Your task to perform on an android device: change your default location settings in chrome Image 0: 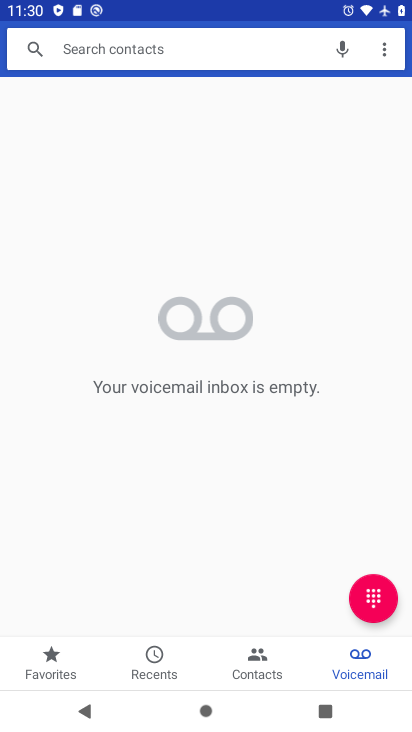
Step 0: press home button
Your task to perform on an android device: change your default location settings in chrome Image 1: 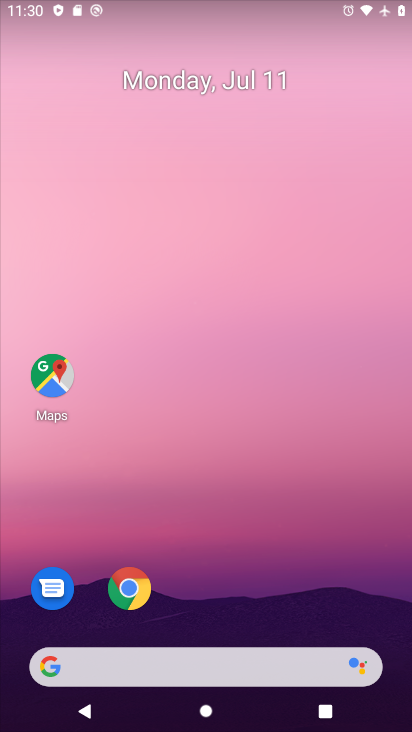
Step 1: click (136, 584)
Your task to perform on an android device: change your default location settings in chrome Image 2: 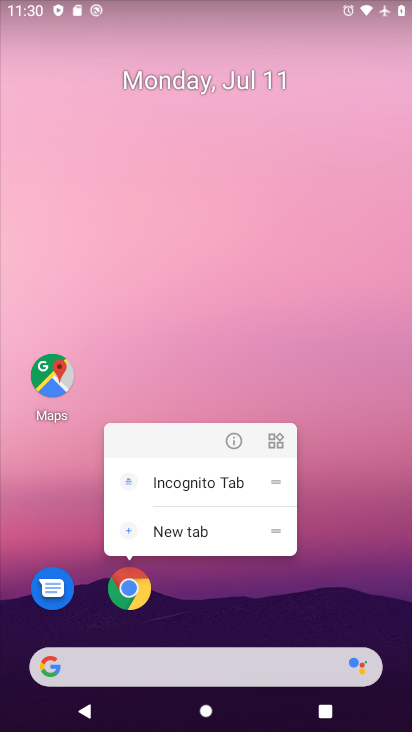
Step 2: click (135, 585)
Your task to perform on an android device: change your default location settings in chrome Image 3: 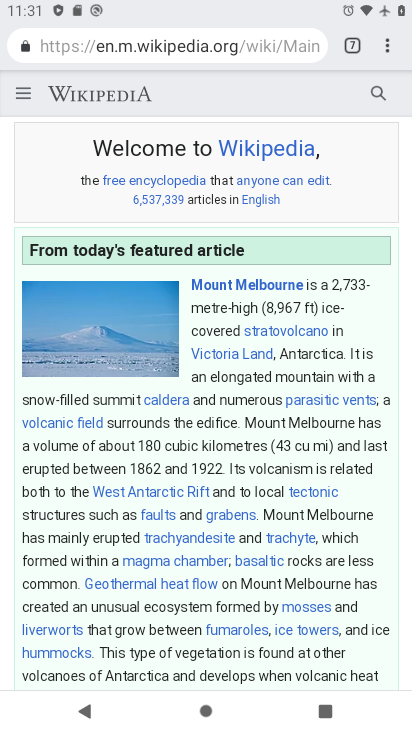
Step 3: drag from (389, 40) to (223, 547)
Your task to perform on an android device: change your default location settings in chrome Image 4: 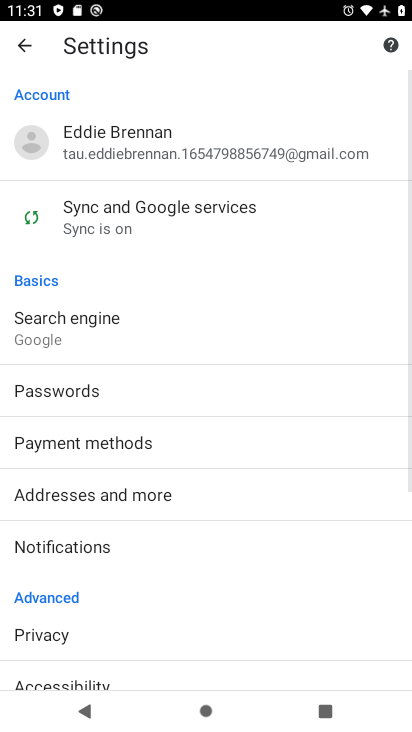
Step 4: drag from (97, 662) to (321, 127)
Your task to perform on an android device: change your default location settings in chrome Image 5: 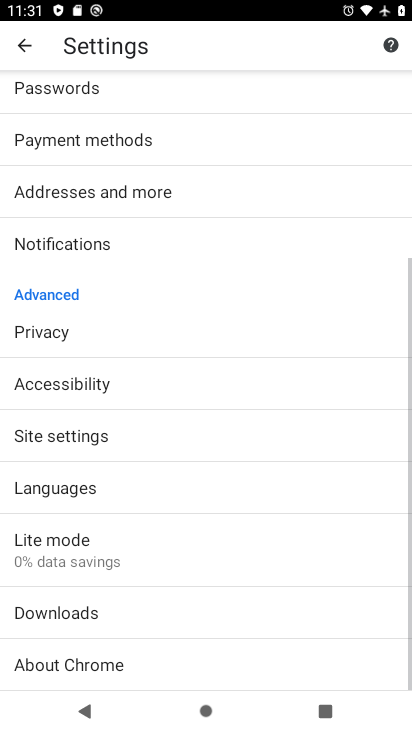
Step 5: click (83, 436)
Your task to perform on an android device: change your default location settings in chrome Image 6: 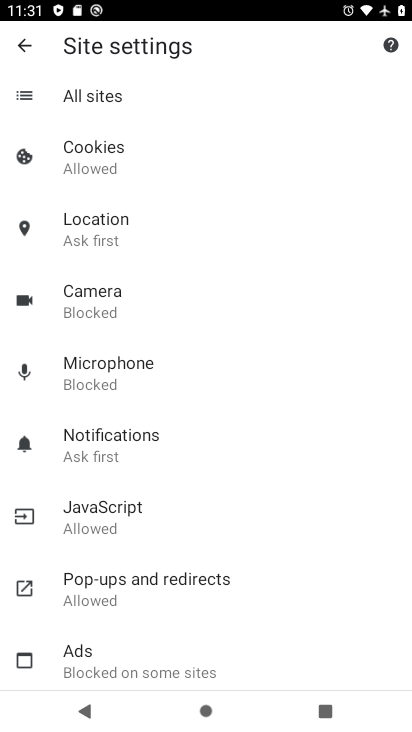
Step 6: click (100, 230)
Your task to perform on an android device: change your default location settings in chrome Image 7: 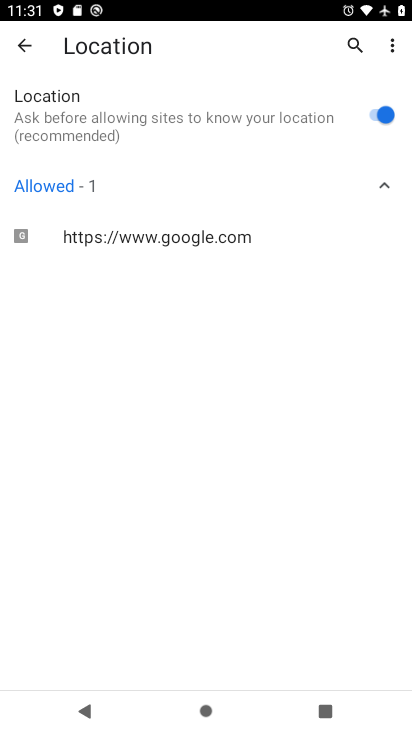
Step 7: click (380, 111)
Your task to perform on an android device: change your default location settings in chrome Image 8: 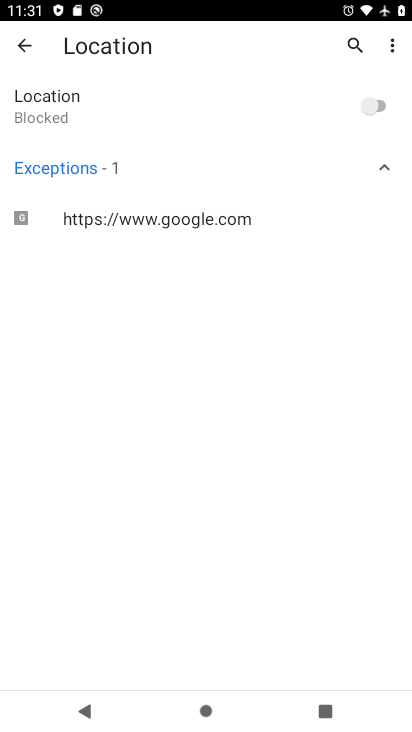
Step 8: task complete